Your task to perform on an android device: Empty the shopping cart on bestbuy. Search for "acer nitro" on bestbuy, select the first entry, and add it to the cart. Image 0: 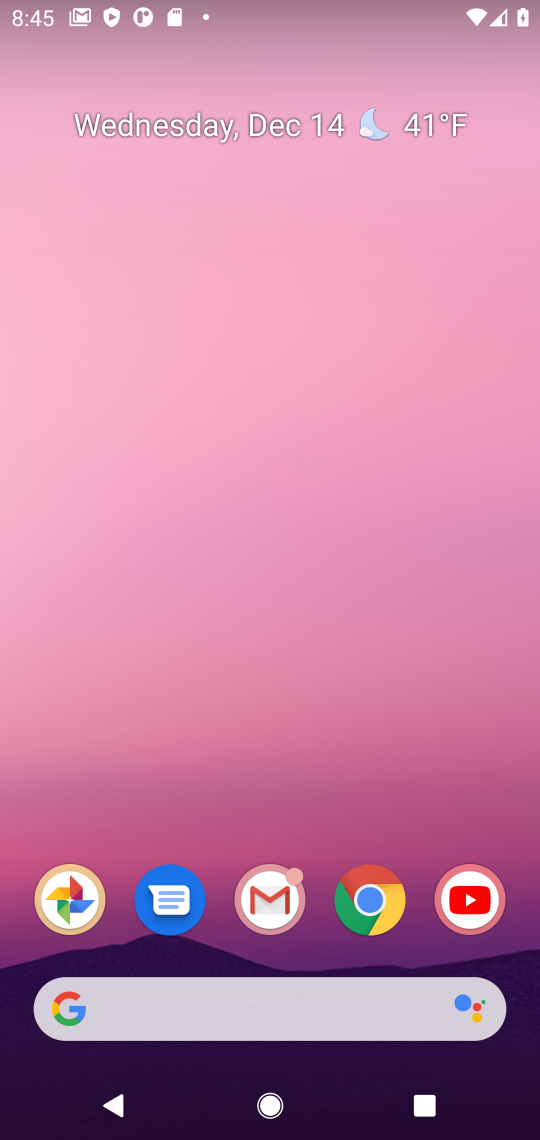
Step 0: click (379, 913)
Your task to perform on an android device: Empty the shopping cart on bestbuy. Search for "acer nitro" on bestbuy, select the first entry, and add it to the cart. Image 1: 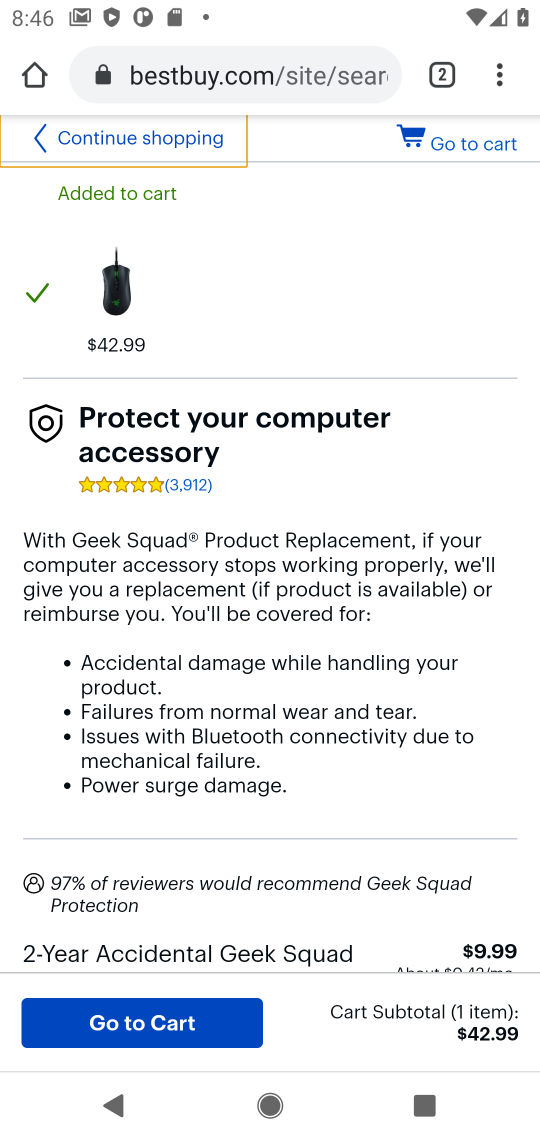
Step 1: press back button
Your task to perform on an android device: Empty the shopping cart on bestbuy. Search for "acer nitro" on bestbuy, select the first entry, and add it to the cart. Image 2: 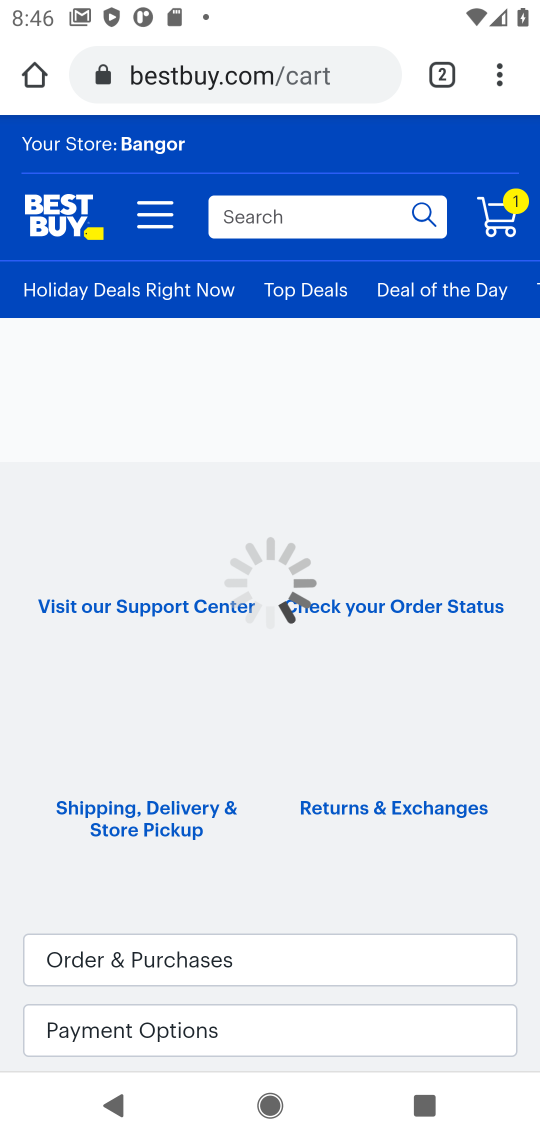
Step 2: click (508, 218)
Your task to perform on an android device: Empty the shopping cart on bestbuy. Search for "acer nitro" on bestbuy, select the first entry, and add it to the cart. Image 3: 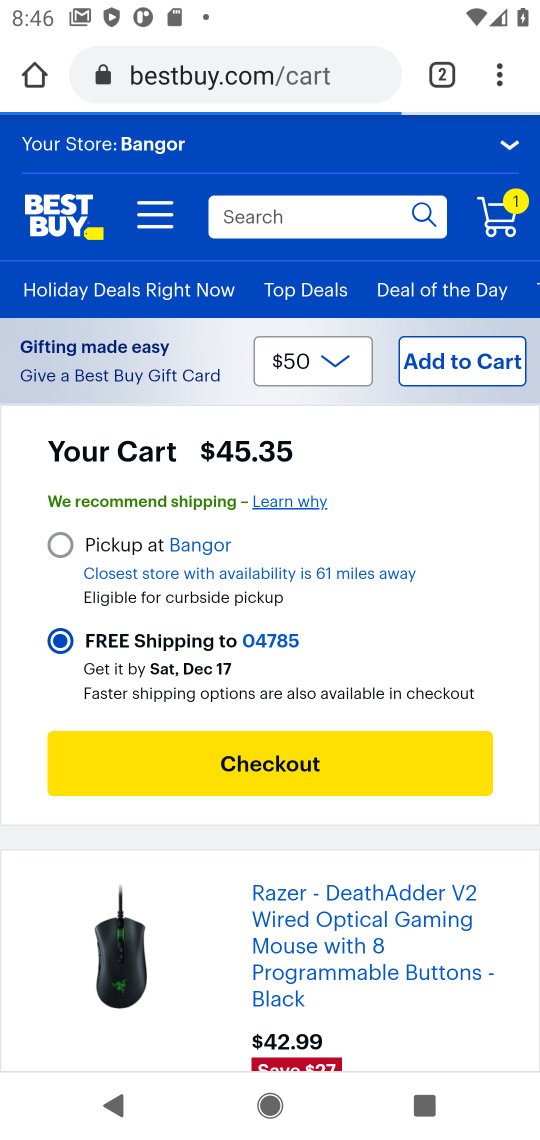
Step 3: drag from (145, 762) to (186, 395)
Your task to perform on an android device: Empty the shopping cart on bestbuy. Search for "acer nitro" on bestbuy, select the first entry, and add it to the cart. Image 4: 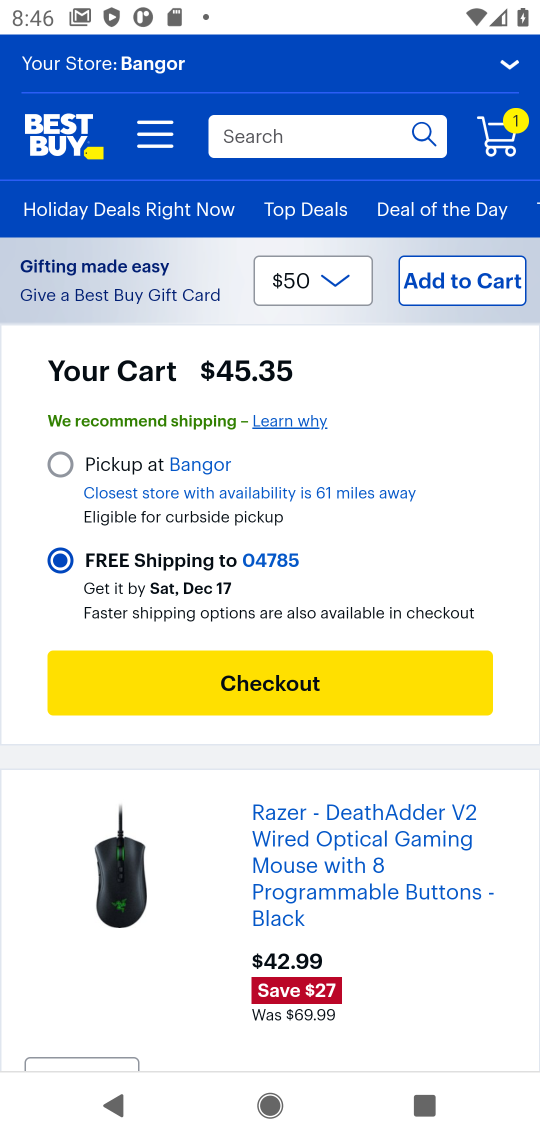
Step 4: drag from (271, 850) to (235, 354)
Your task to perform on an android device: Empty the shopping cart on bestbuy. Search for "acer nitro" on bestbuy, select the first entry, and add it to the cart. Image 5: 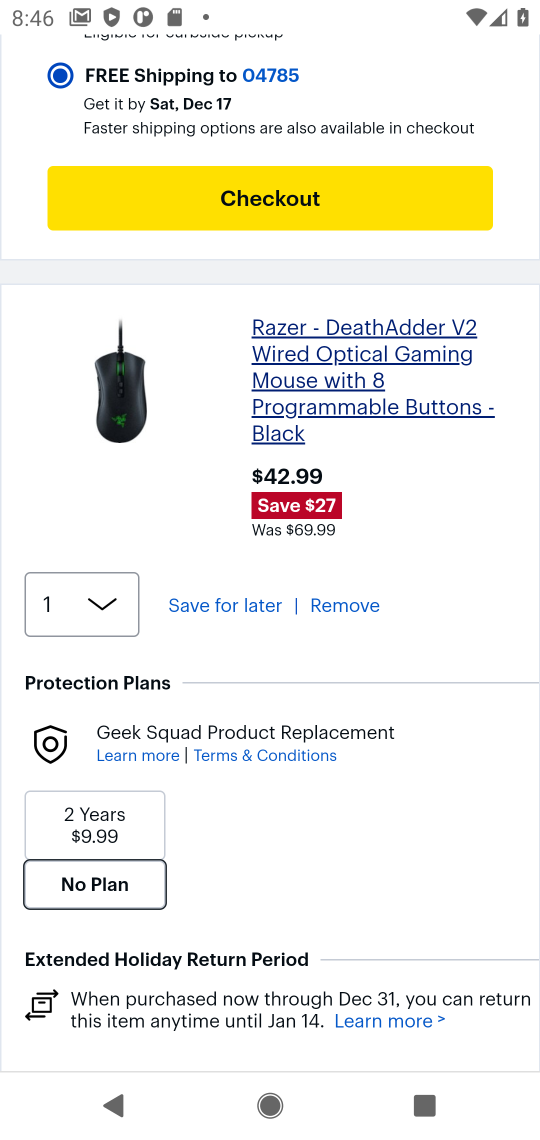
Step 5: click (340, 596)
Your task to perform on an android device: Empty the shopping cart on bestbuy. Search for "acer nitro" on bestbuy, select the first entry, and add it to the cart. Image 6: 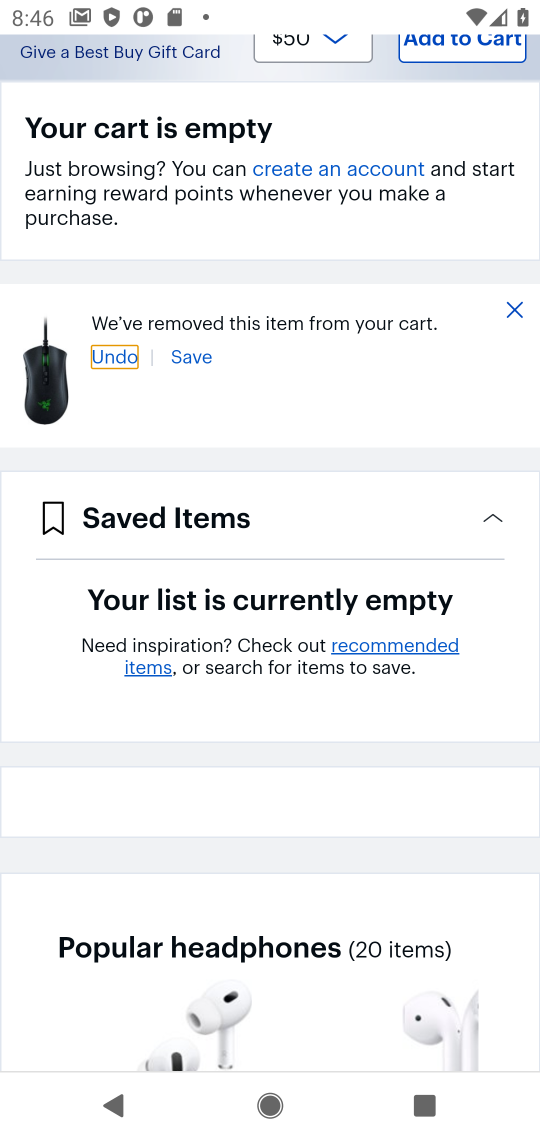
Step 6: drag from (226, 353) to (189, 815)
Your task to perform on an android device: Empty the shopping cart on bestbuy. Search for "acer nitro" on bestbuy, select the first entry, and add it to the cart. Image 7: 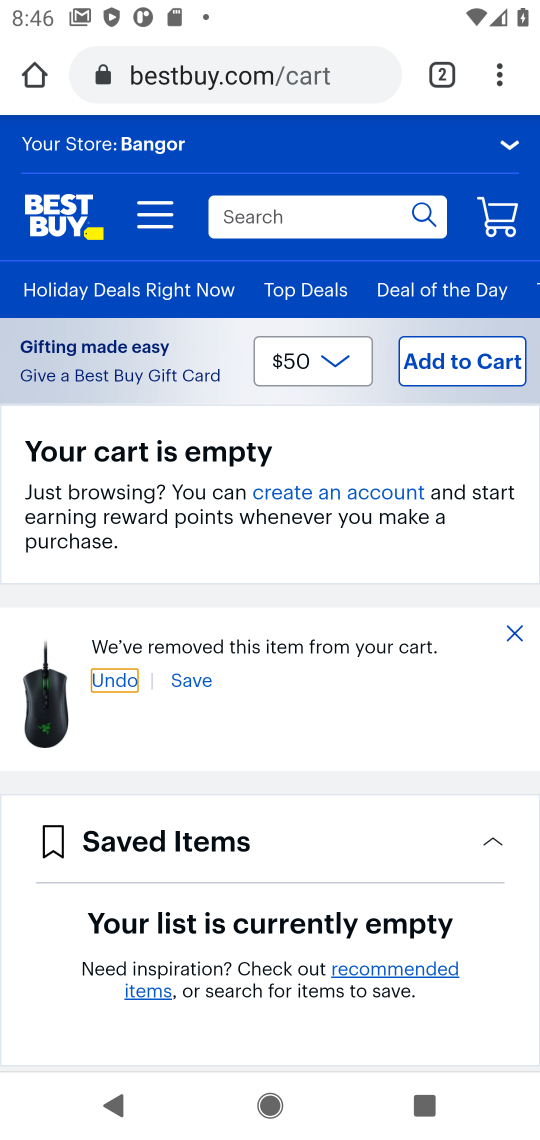
Step 7: click (241, 228)
Your task to perform on an android device: Empty the shopping cart on bestbuy. Search for "acer nitro" on bestbuy, select the first entry, and add it to the cart. Image 8: 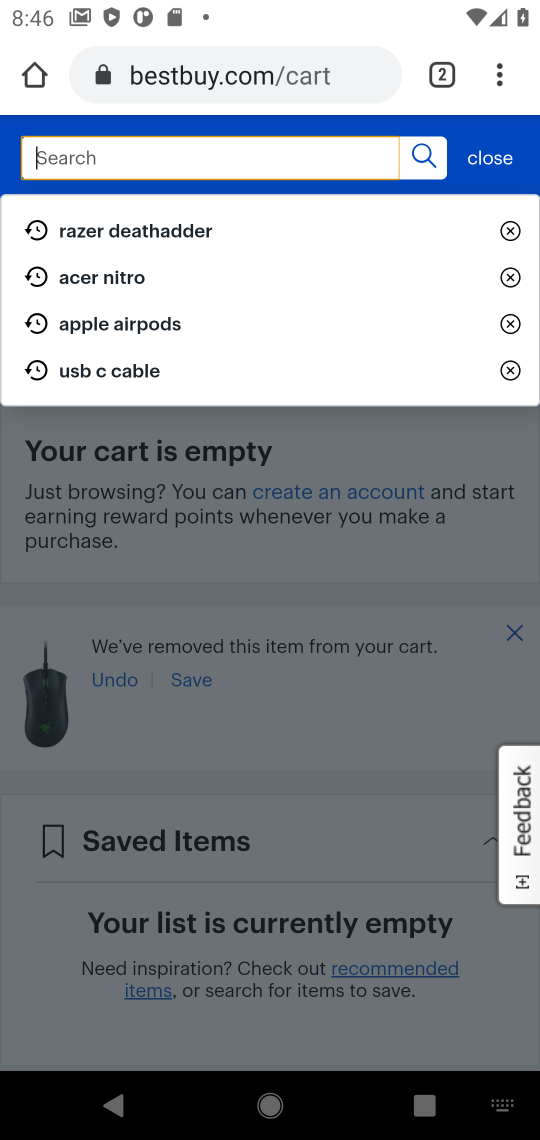
Step 8: type "acer nitro"
Your task to perform on an android device: Empty the shopping cart on bestbuy. Search for "acer nitro" on bestbuy, select the first entry, and add it to the cart. Image 9: 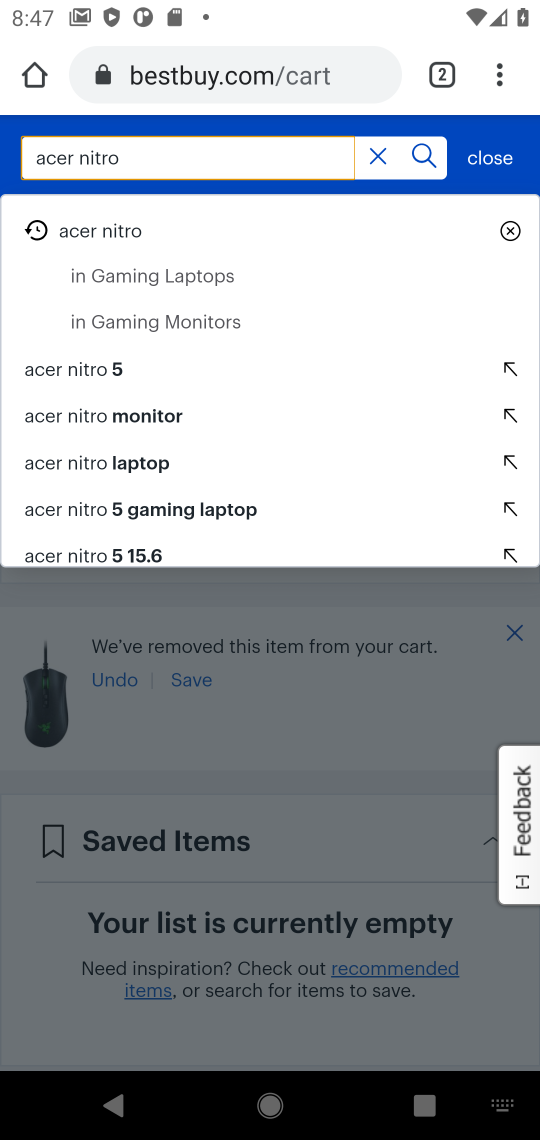
Step 9: click (102, 242)
Your task to perform on an android device: Empty the shopping cart on bestbuy. Search for "acer nitro" on bestbuy, select the first entry, and add it to the cart. Image 10: 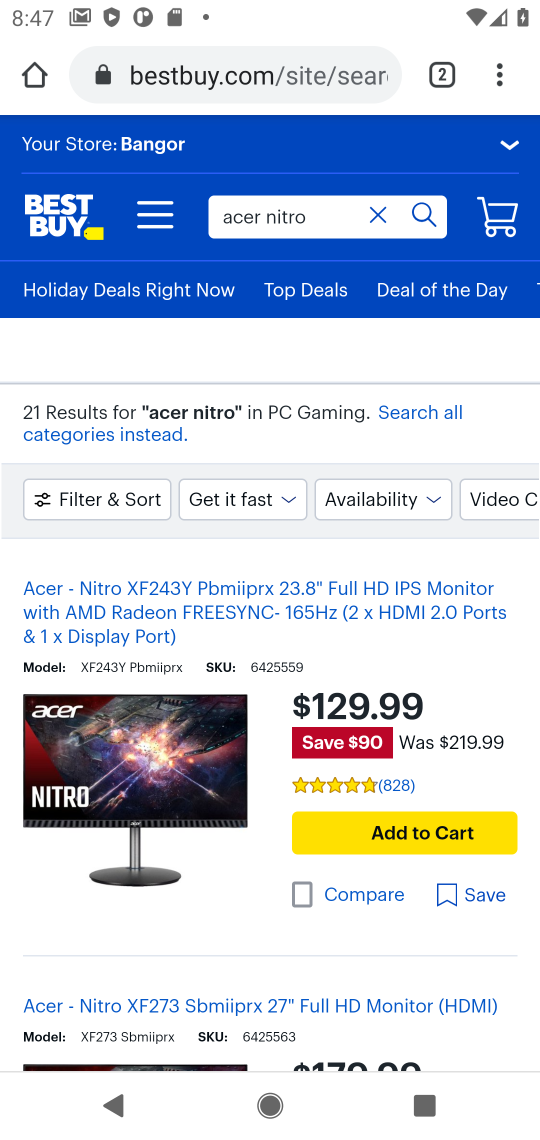
Step 10: click (155, 791)
Your task to perform on an android device: Empty the shopping cart on bestbuy. Search for "acer nitro" on bestbuy, select the first entry, and add it to the cart. Image 11: 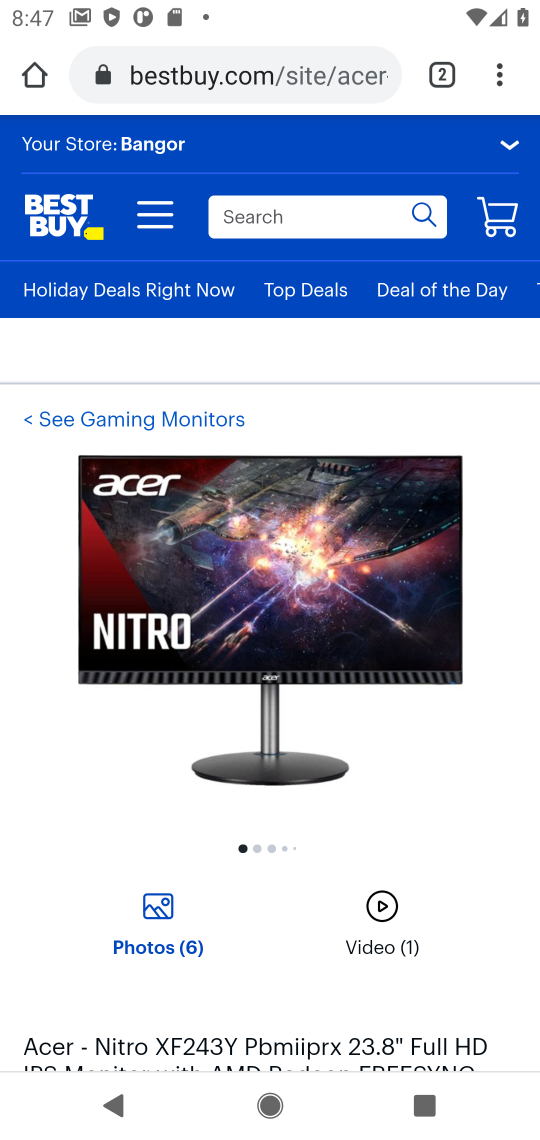
Step 11: drag from (266, 920) to (258, 284)
Your task to perform on an android device: Empty the shopping cart on bestbuy. Search for "acer nitro" on bestbuy, select the first entry, and add it to the cart. Image 12: 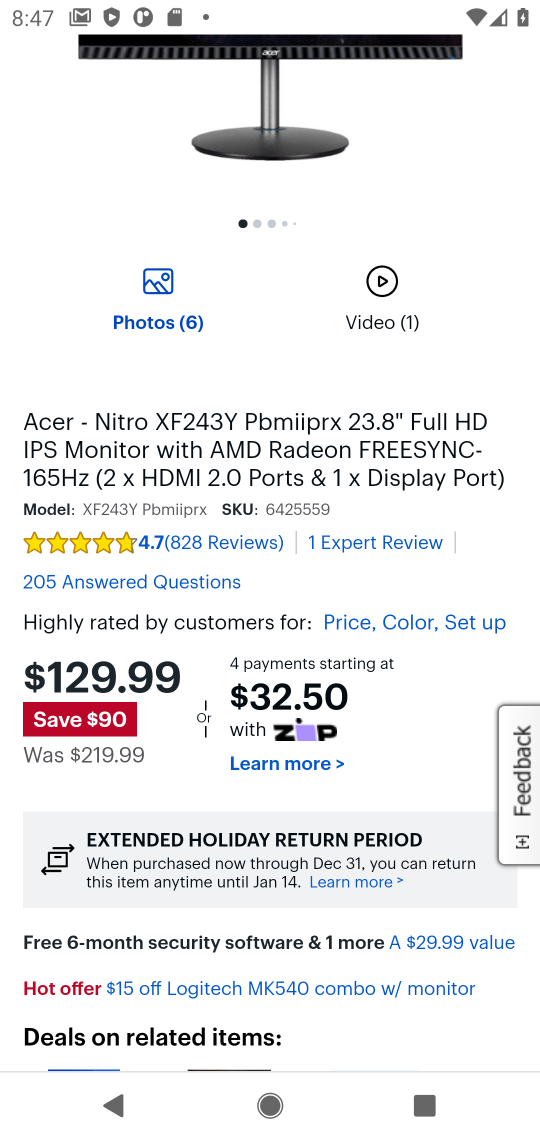
Step 12: drag from (255, 767) to (225, 281)
Your task to perform on an android device: Empty the shopping cart on bestbuy. Search for "acer nitro" on bestbuy, select the first entry, and add it to the cart. Image 13: 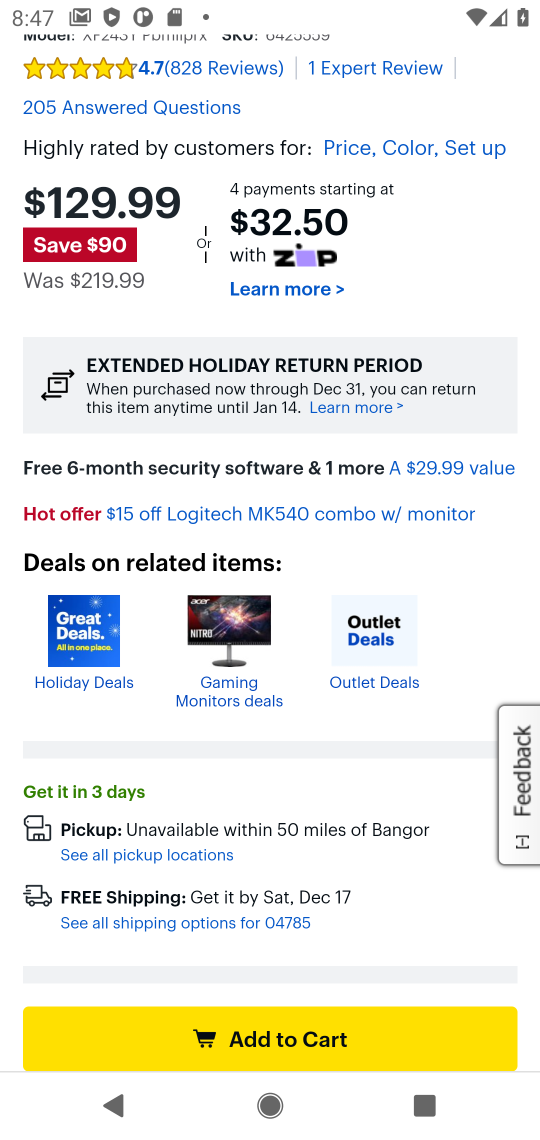
Step 13: drag from (235, 753) to (220, 481)
Your task to perform on an android device: Empty the shopping cart on bestbuy. Search for "acer nitro" on bestbuy, select the first entry, and add it to the cart. Image 14: 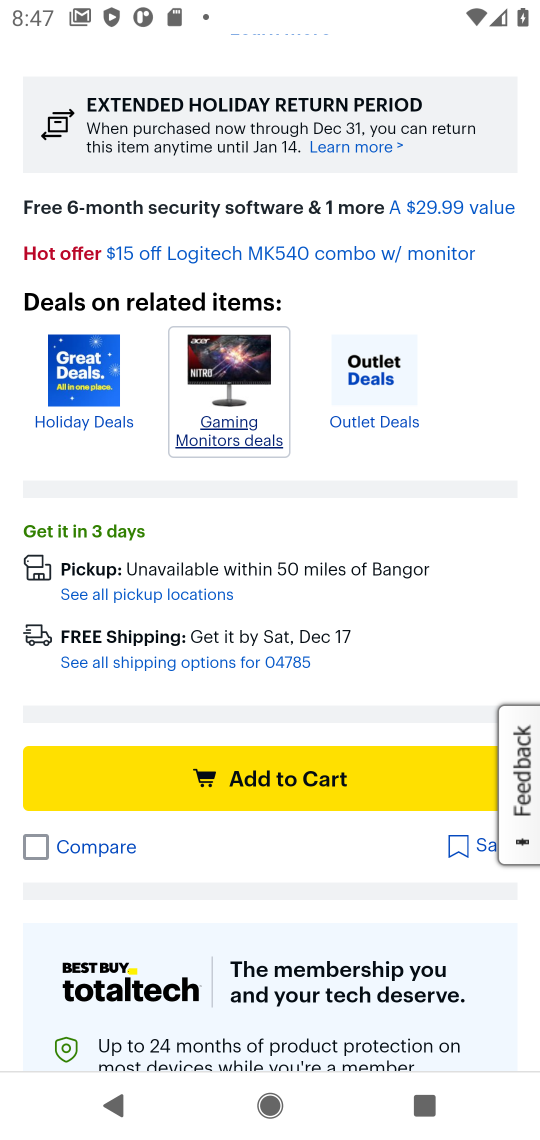
Step 14: click (236, 767)
Your task to perform on an android device: Empty the shopping cart on bestbuy. Search for "acer nitro" on bestbuy, select the first entry, and add it to the cart. Image 15: 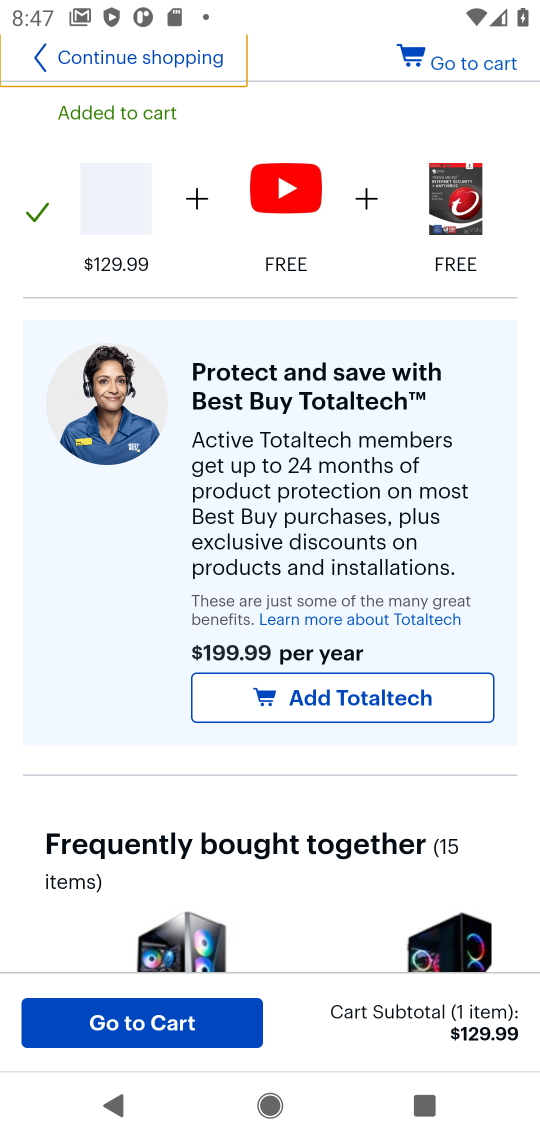
Step 15: task complete